Your task to perform on an android device: check the backup settings in the google photos Image 0: 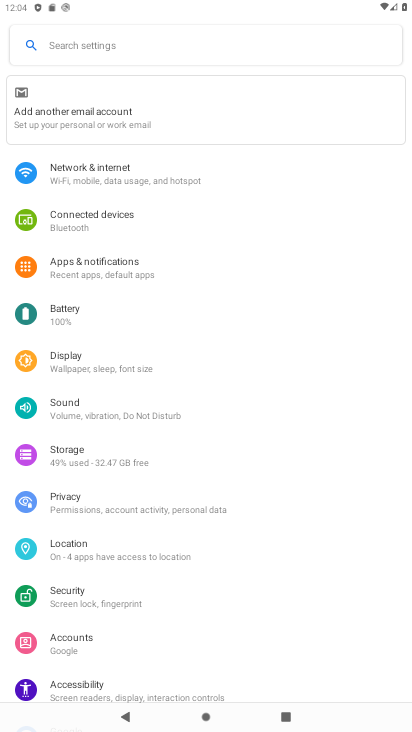
Step 0: press home button
Your task to perform on an android device: check the backup settings in the google photos Image 1: 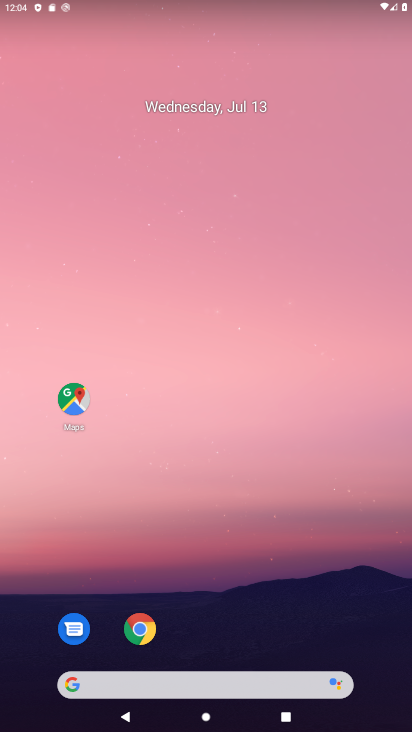
Step 1: drag from (226, 625) to (275, 155)
Your task to perform on an android device: check the backup settings in the google photos Image 2: 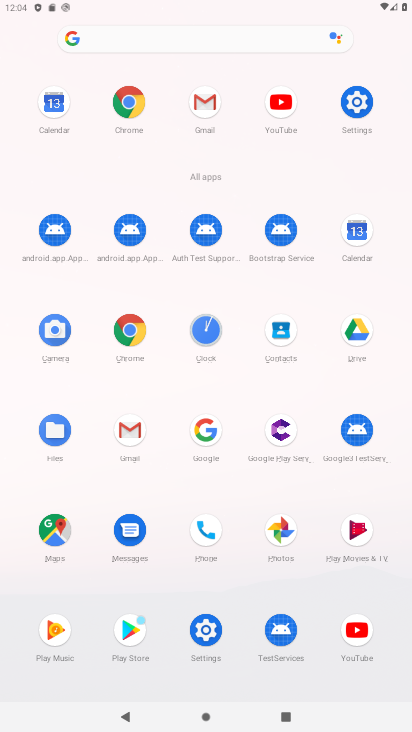
Step 2: click (290, 522)
Your task to perform on an android device: check the backup settings in the google photos Image 3: 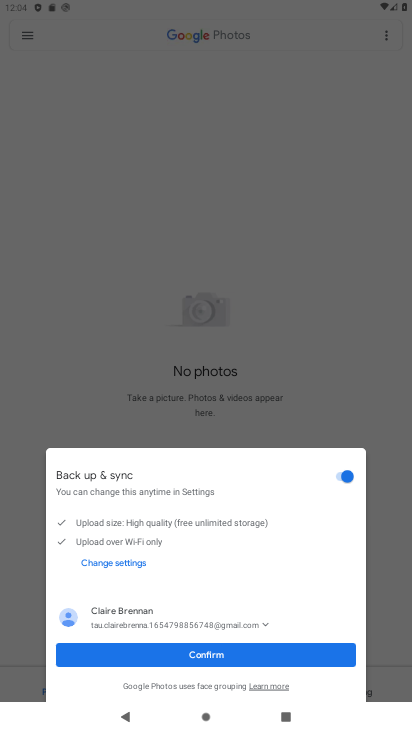
Step 3: click (196, 662)
Your task to perform on an android device: check the backup settings in the google photos Image 4: 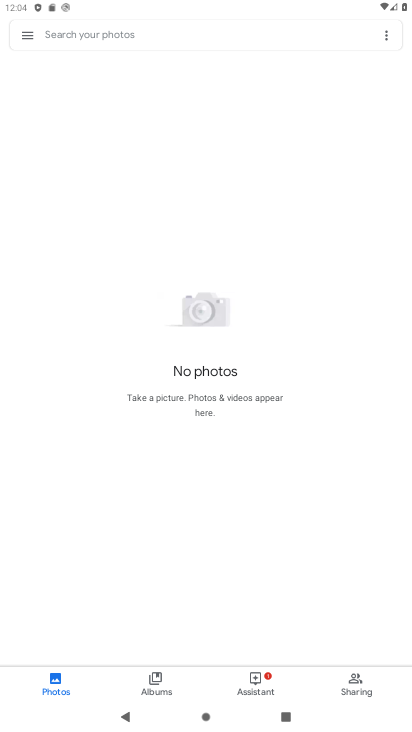
Step 4: click (384, 38)
Your task to perform on an android device: check the backup settings in the google photos Image 5: 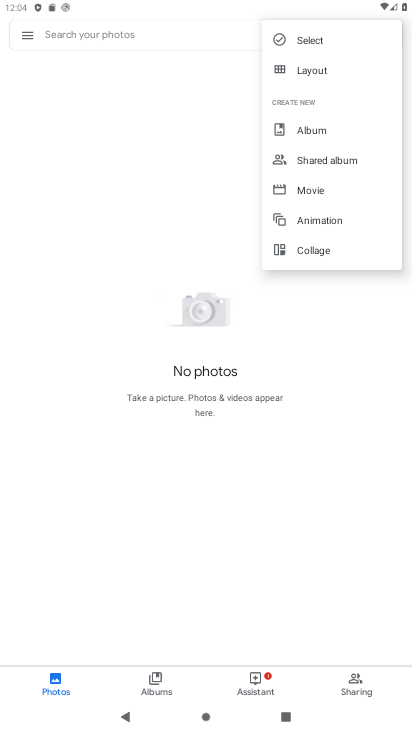
Step 5: click (32, 29)
Your task to perform on an android device: check the backup settings in the google photos Image 6: 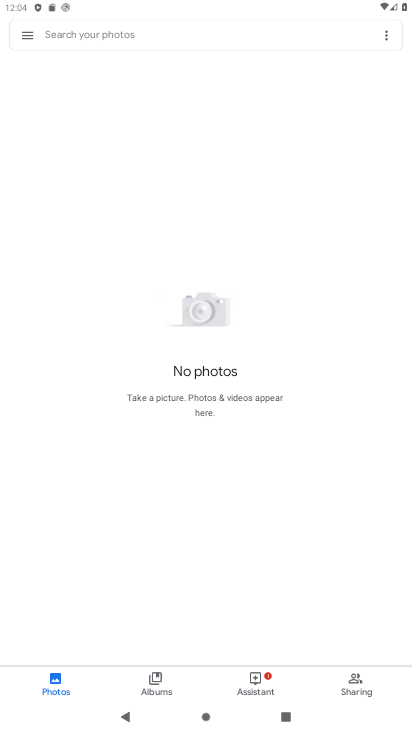
Step 6: click (32, 29)
Your task to perform on an android device: check the backup settings in the google photos Image 7: 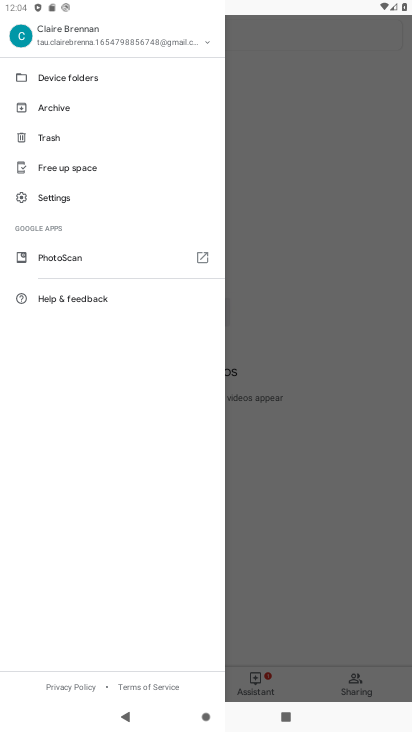
Step 7: click (84, 201)
Your task to perform on an android device: check the backup settings in the google photos Image 8: 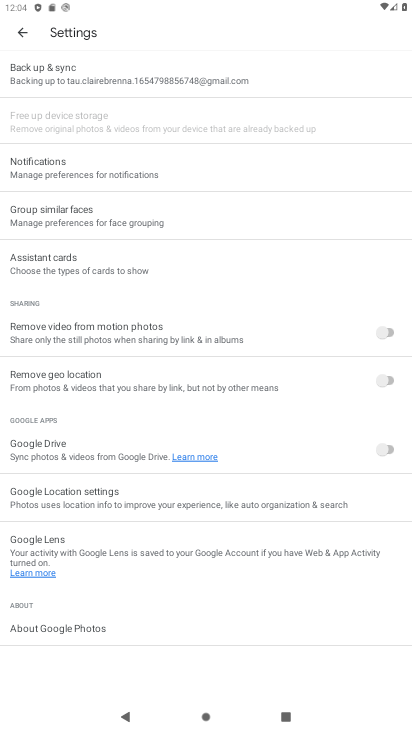
Step 8: click (133, 71)
Your task to perform on an android device: check the backup settings in the google photos Image 9: 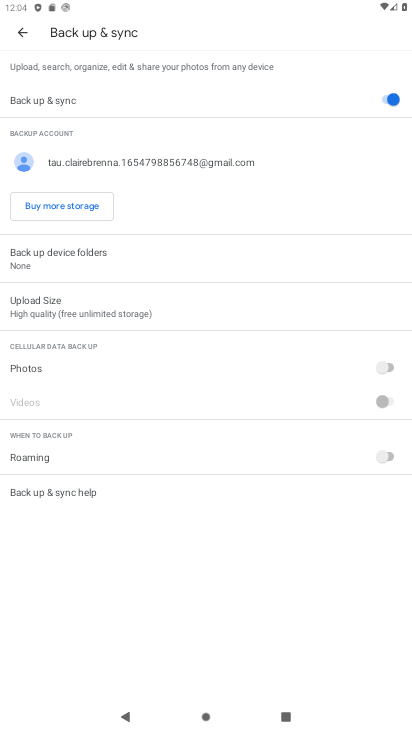
Step 9: task complete